Your task to perform on an android device: check out phone information Image 0: 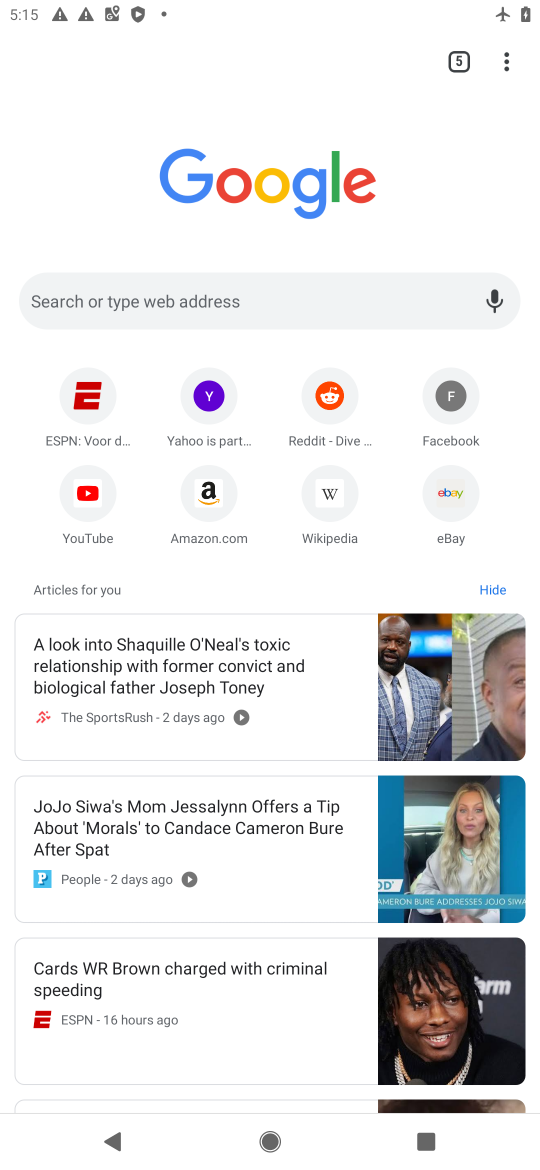
Step 0: press home button
Your task to perform on an android device: check out phone information Image 1: 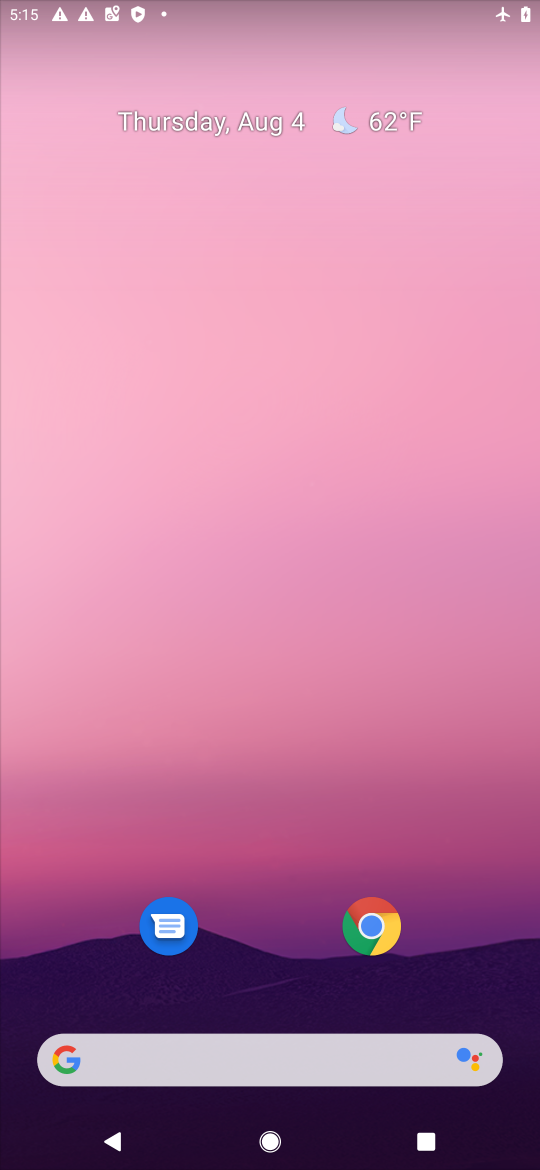
Step 1: drag from (338, 842) to (419, 395)
Your task to perform on an android device: check out phone information Image 2: 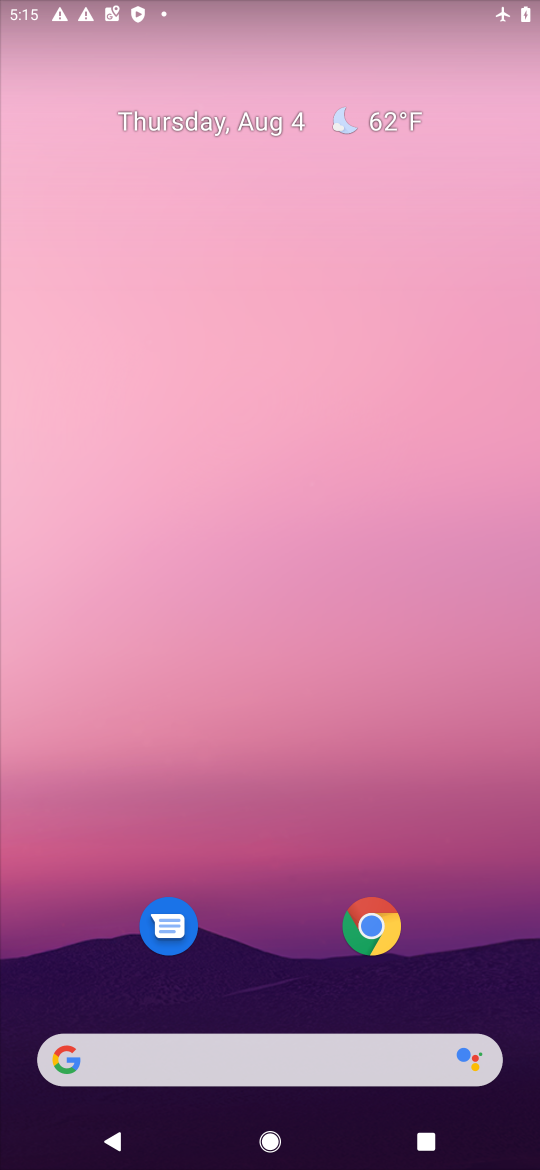
Step 2: drag from (284, 992) to (284, 314)
Your task to perform on an android device: check out phone information Image 3: 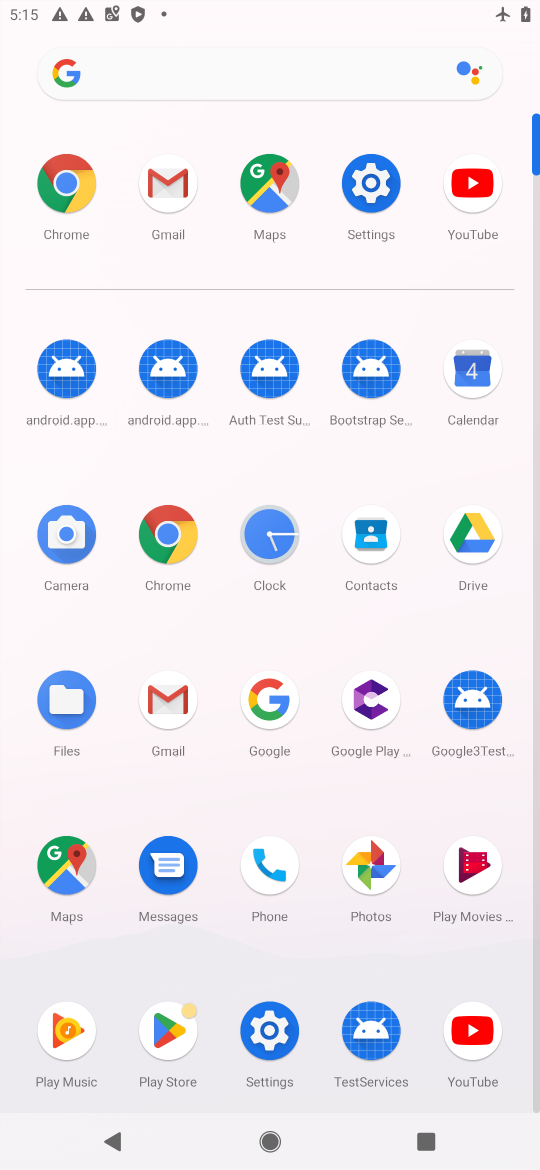
Step 3: click (379, 190)
Your task to perform on an android device: check out phone information Image 4: 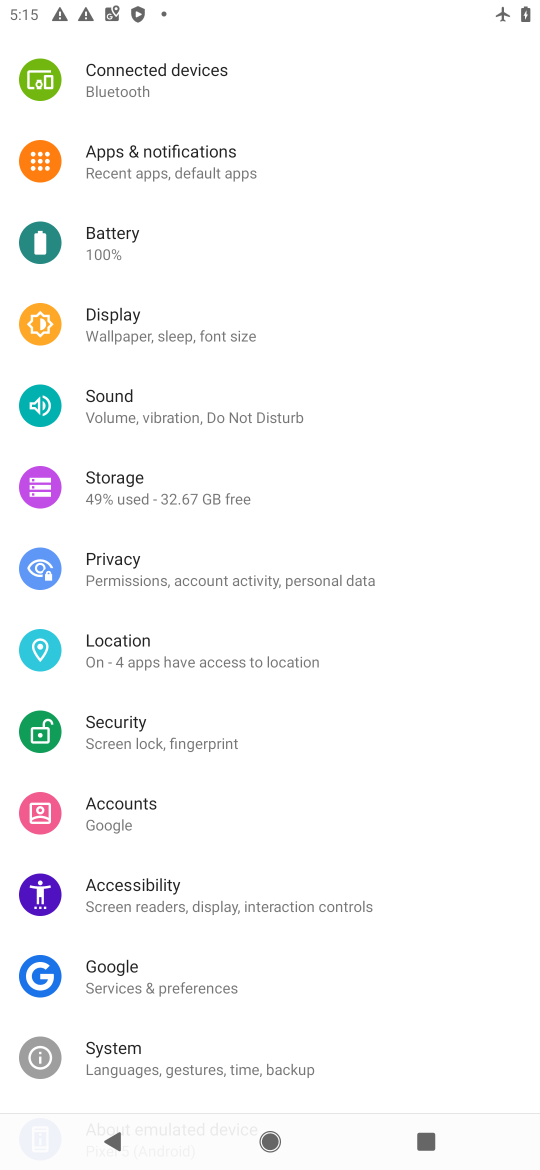
Step 4: drag from (398, 1057) to (425, 306)
Your task to perform on an android device: check out phone information Image 5: 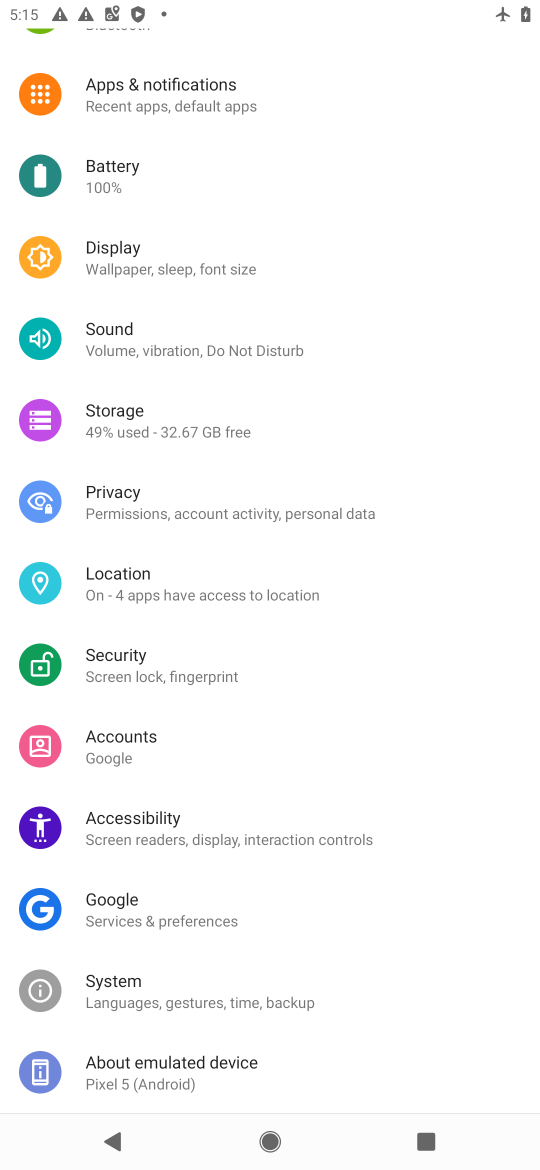
Step 5: click (147, 1073)
Your task to perform on an android device: check out phone information Image 6: 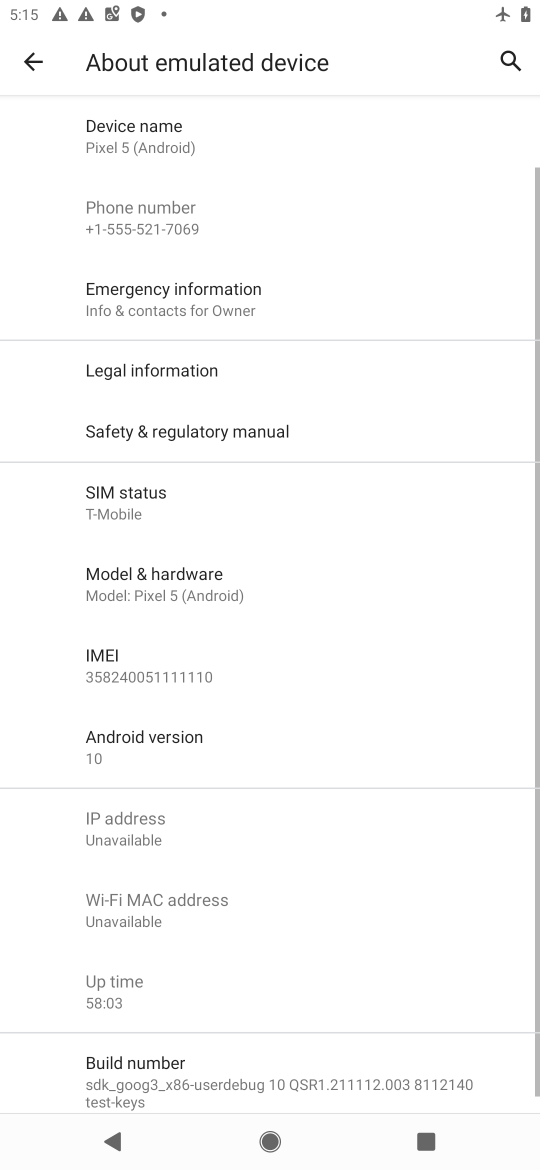
Step 6: drag from (436, 995) to (433, 324)
Your task to perform on an android device: check out phone information Image 7: 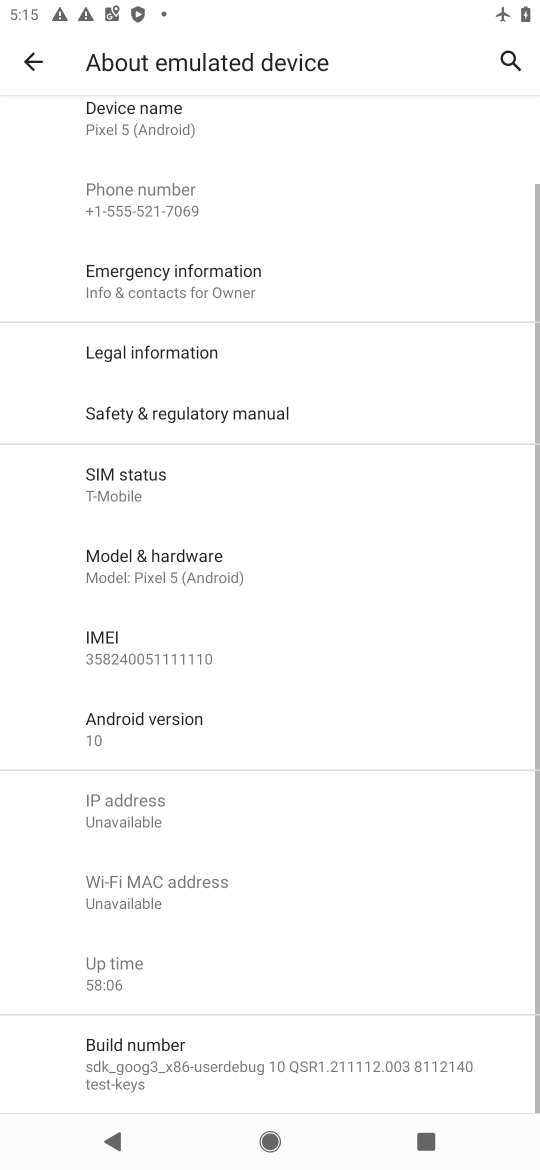
Step 7: click (151, 284)
Your task to perform on an android device: check out phone information Image 8: 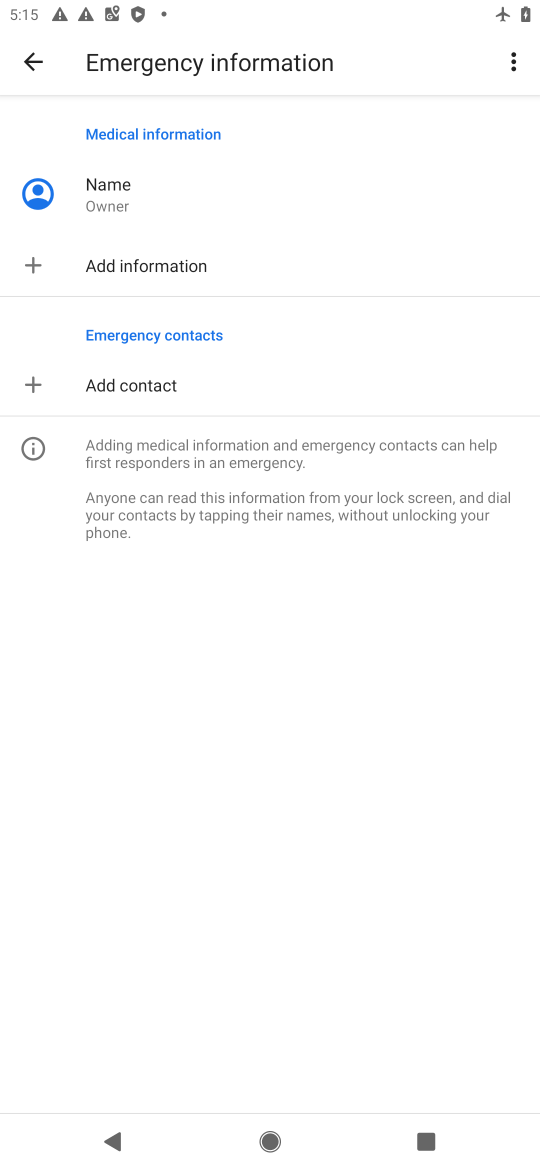
Step 8: task complete